Your task to perform on an android device: Check the price on the Dyson V11 Motorhead on Best Buy Image 0: 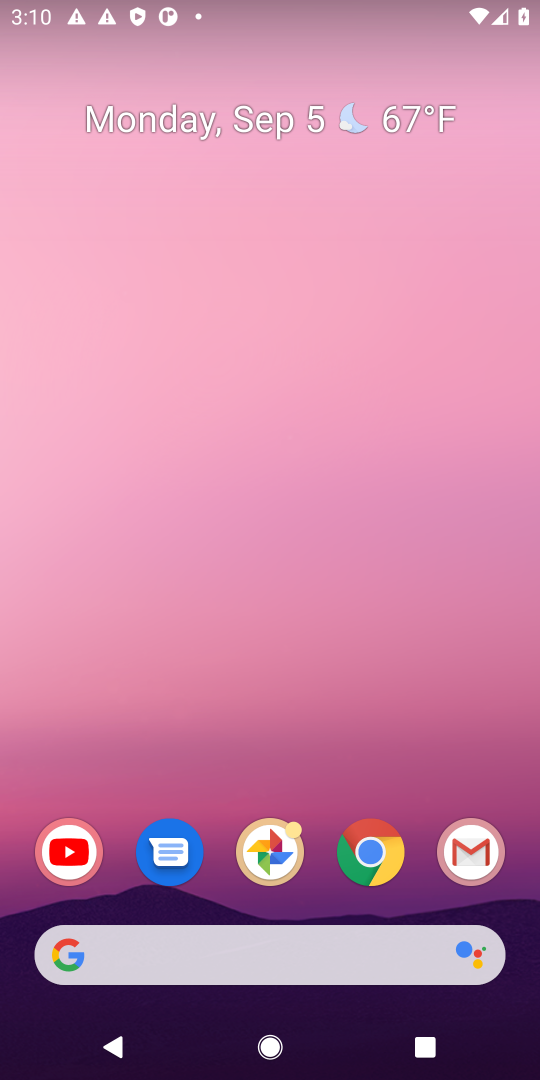
Step 0: click (369, 848)
Your task to perform on an android device: Check the price on the Dyson V11 Motorhead on Best Buy Image 1: 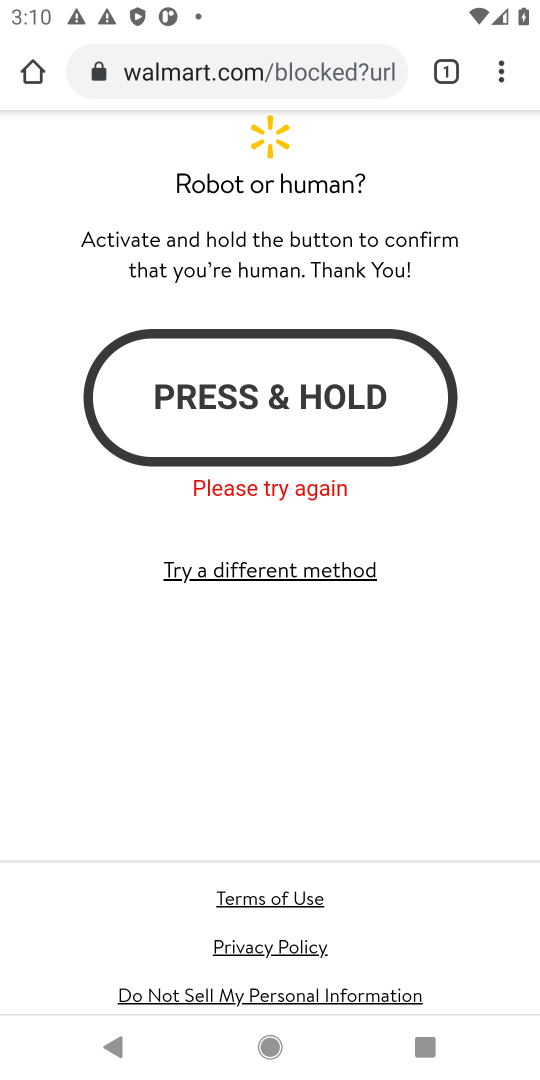
Step 1: click (379, 46)
Your task to perform on an android device: Check the price on the Dyson V11 Motorhead on Best Buy Image 2: 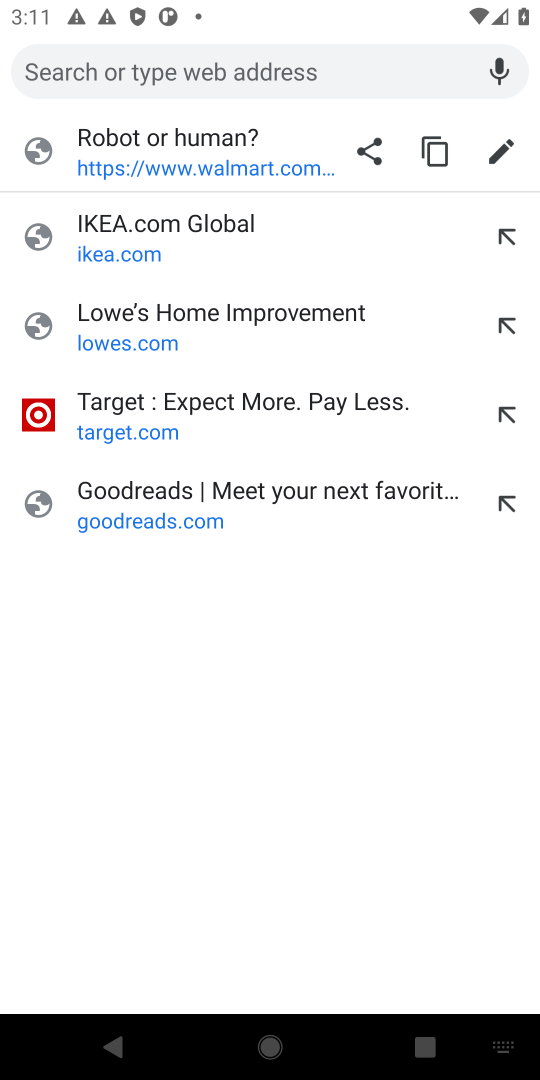
Step 2: type "Best buy"
Your task to perform on an android device: Check the price on the Dyson V11 Motorhead on Best Buy Image 3: 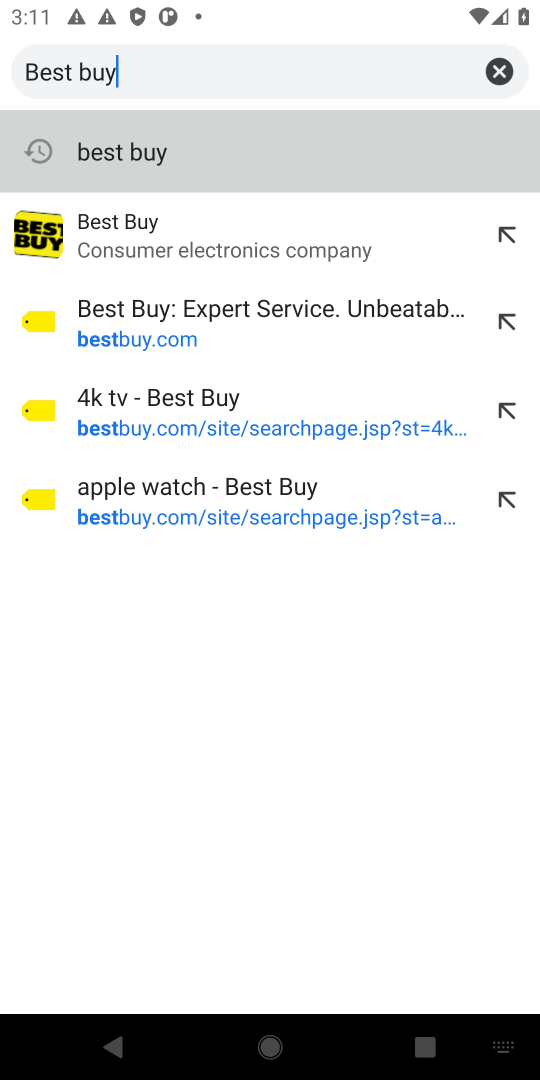
Step 3: click (121, 218)
Your task to perform on an android device: Check the price on the Dyson V11 Motorhead on Best Buy Image 4: 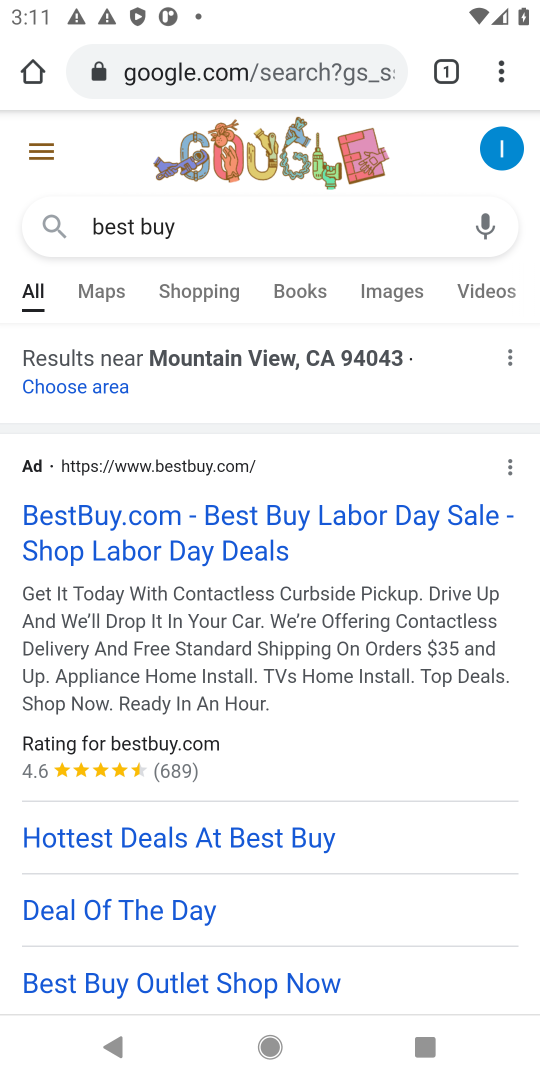
Step 4: click (121, 518)
Your task to perform on an android device: Check the price on the Dyson V11 Motorhead on Best Buy Image 5: 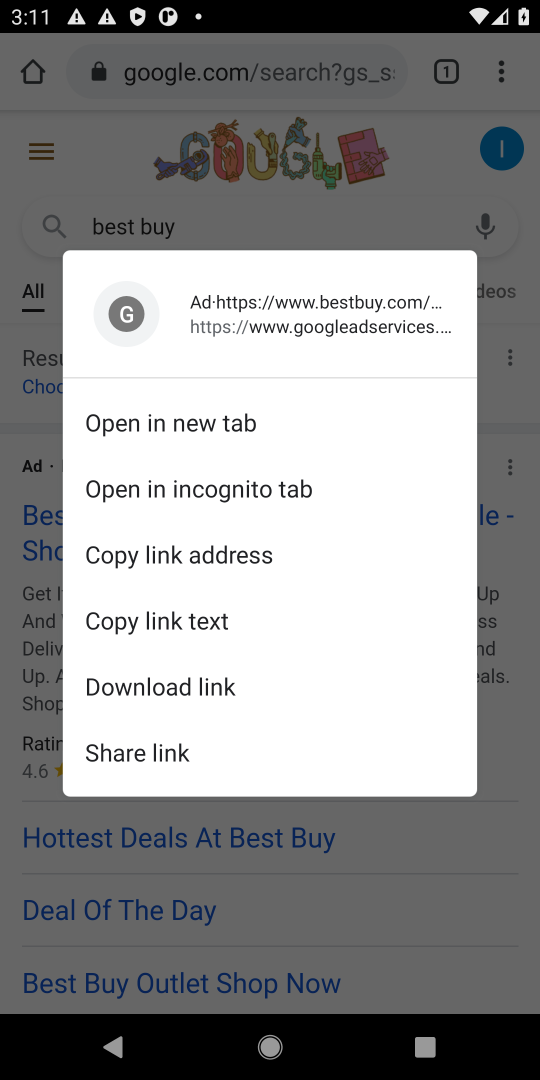
Step 5: click (32, 809)
Your task to perform on an android device: Check the price on the Dyson V11 Motorhead on Best Buy Image 6: 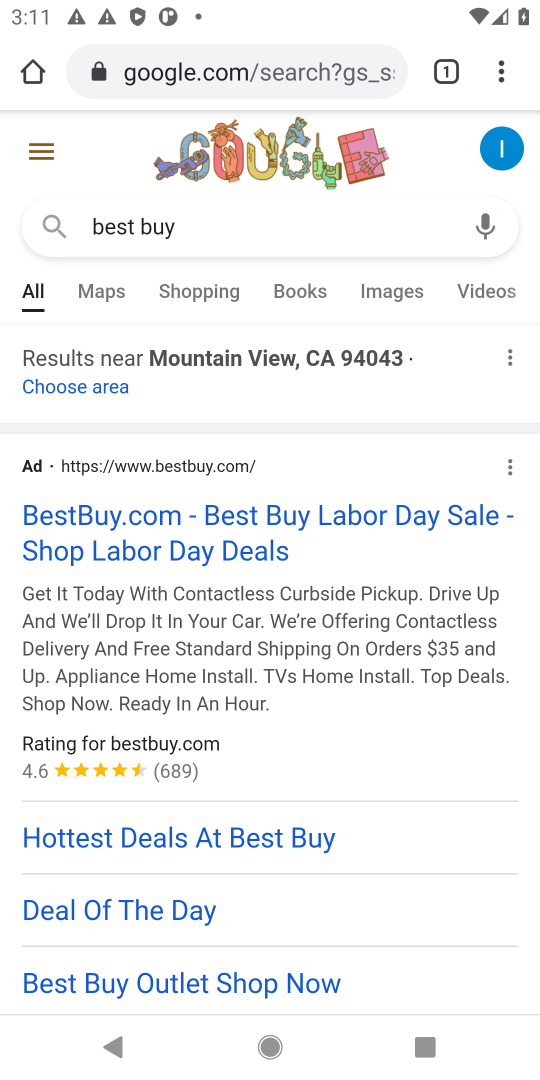
Step 6: click (283, 515)
Your task to perform on an android device: Check the price on the Dyson V11 Motorhead on Best Buy Image 7: 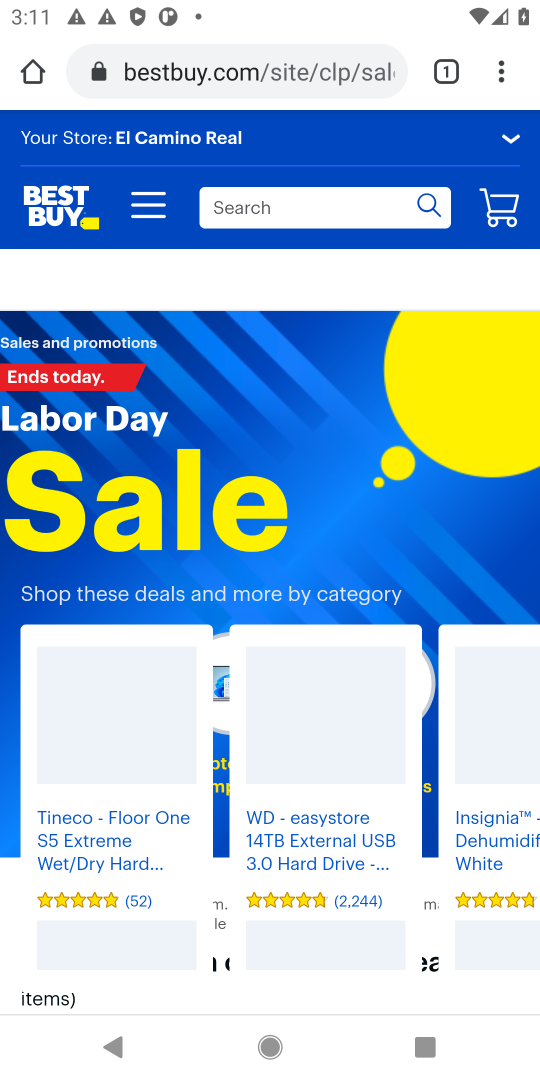
Step 7: click (249, 202)
Your task to perform on an android device: Check the price on the Dyson V11 Motorhead on Best Buy Image 8: 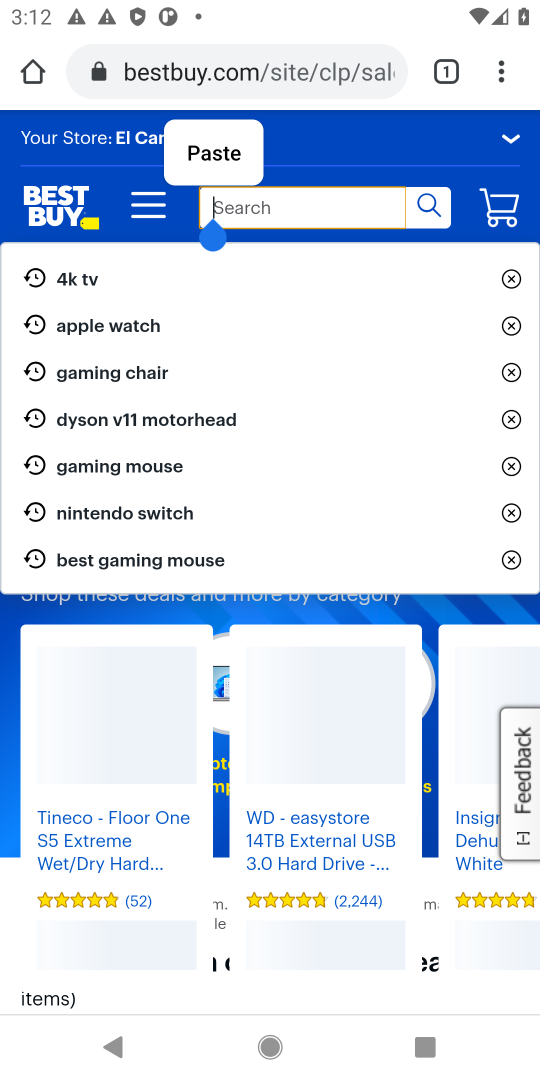
Step 8: type " Dyson V11 Motorhead"
Your task to perform on an android device: Check the price on the Dyson V11 Motorhead on Best Buy Image 9: 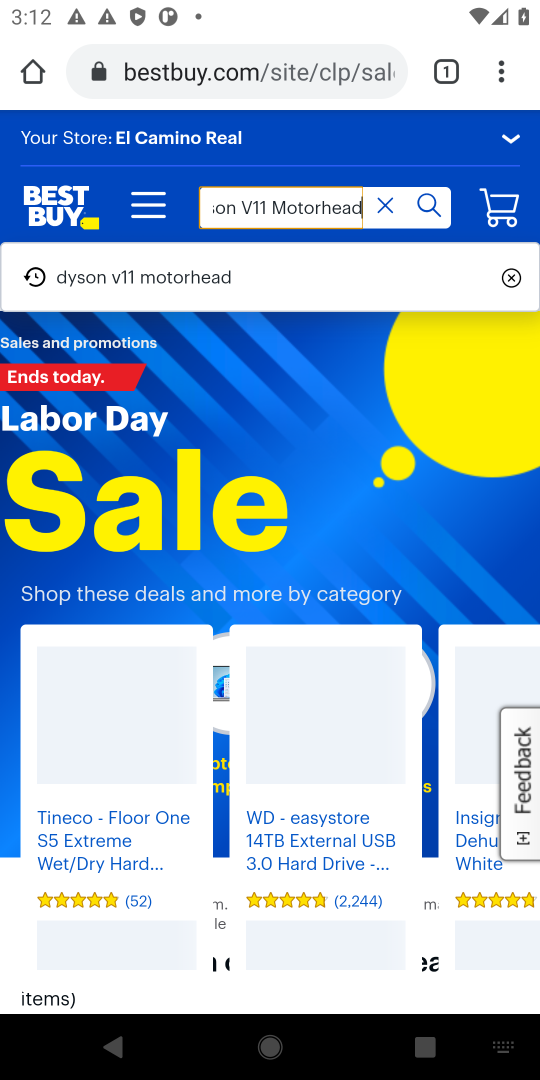
Step 9: click (421, 199)
Your task to perform on an android device: Check the price on the Dyson V11 Motorhead on Best Buy Image 10: 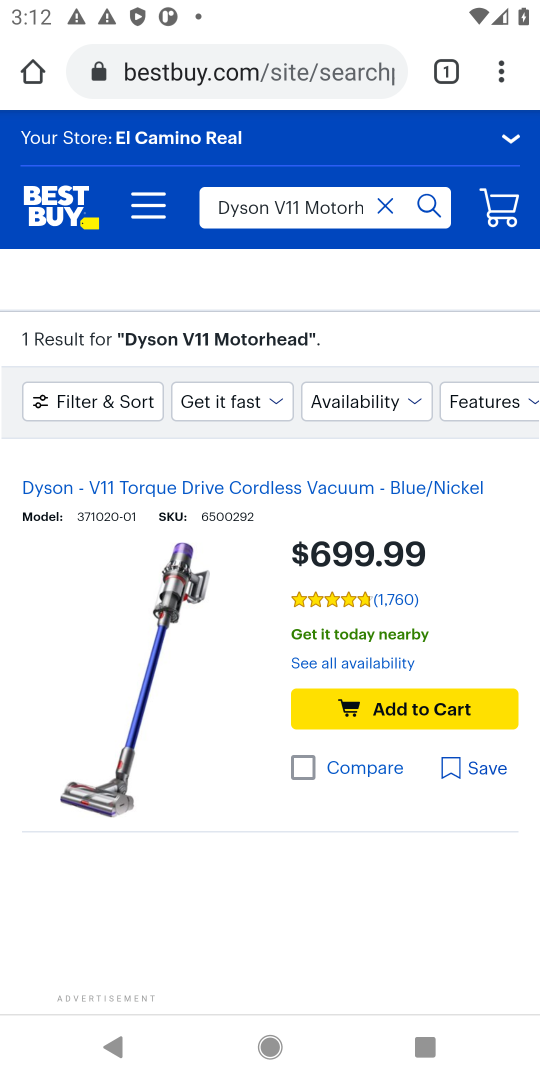
Step 10: task complete